Your task to perform on an android device: uninstall "Booking.com: Hotels and more" Image 0: 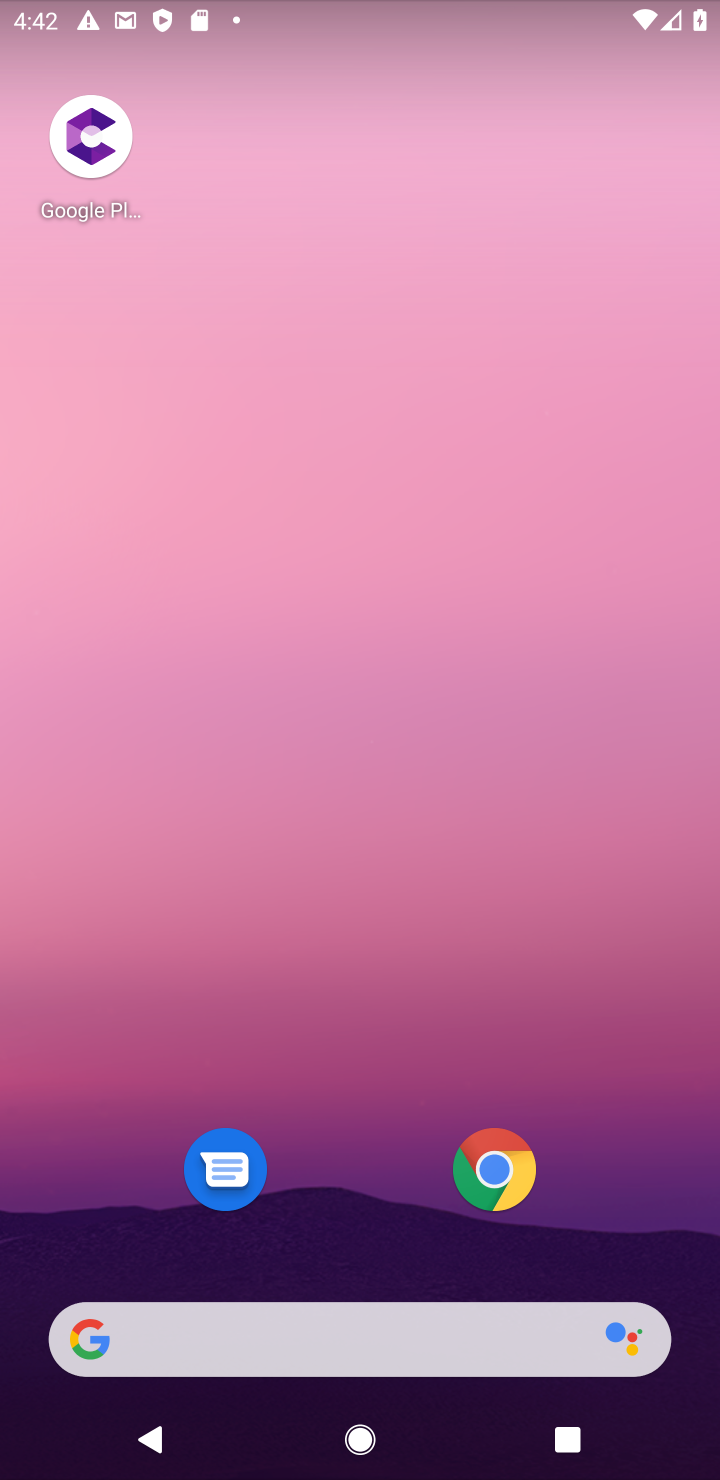
Step 0: drag from (670, 1064) to (484, 326)
Your task to perform on an android device: uninstall "Booking.com: Hotels and more" Image 1: 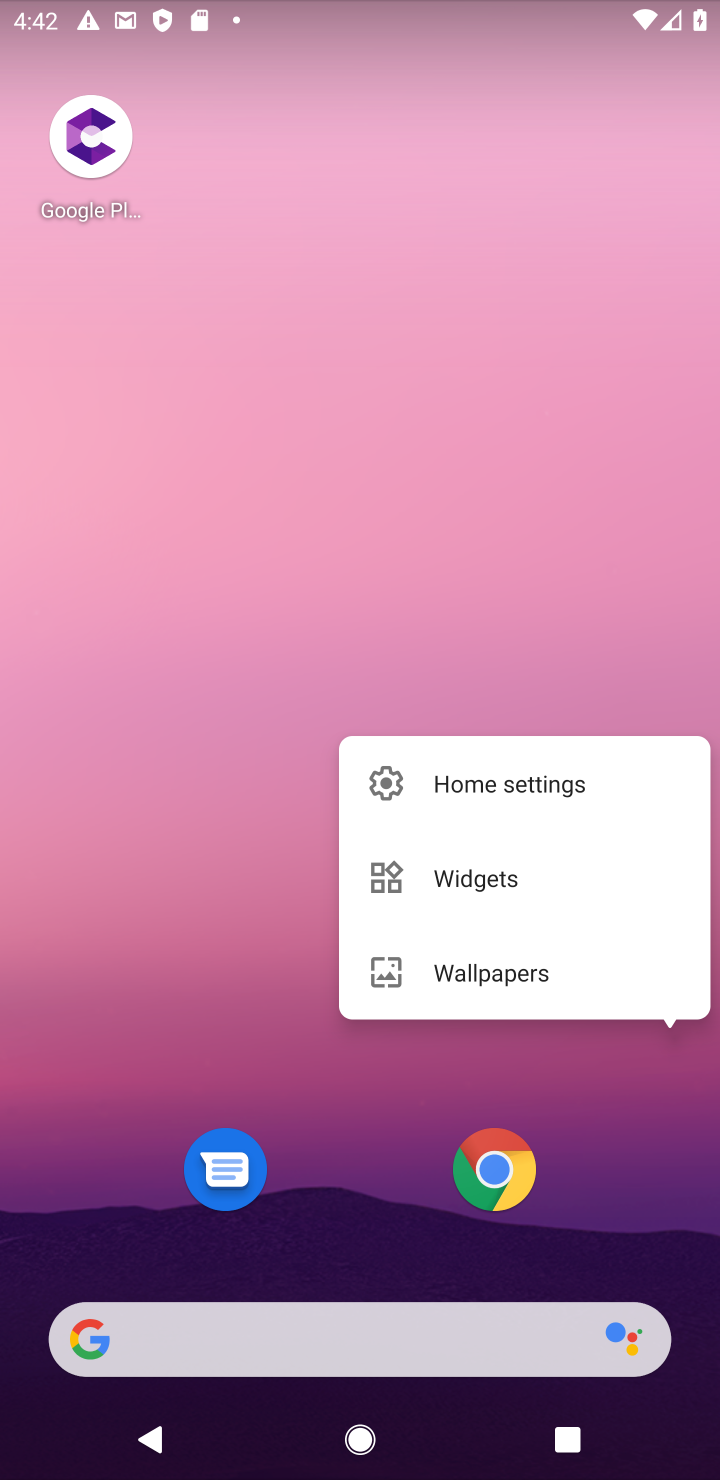
Step 1: drag from (265, 1088) to (142, 334)
Your task to perform on an android device: uninstall "Booking.com: Hotels and more" Image 2: 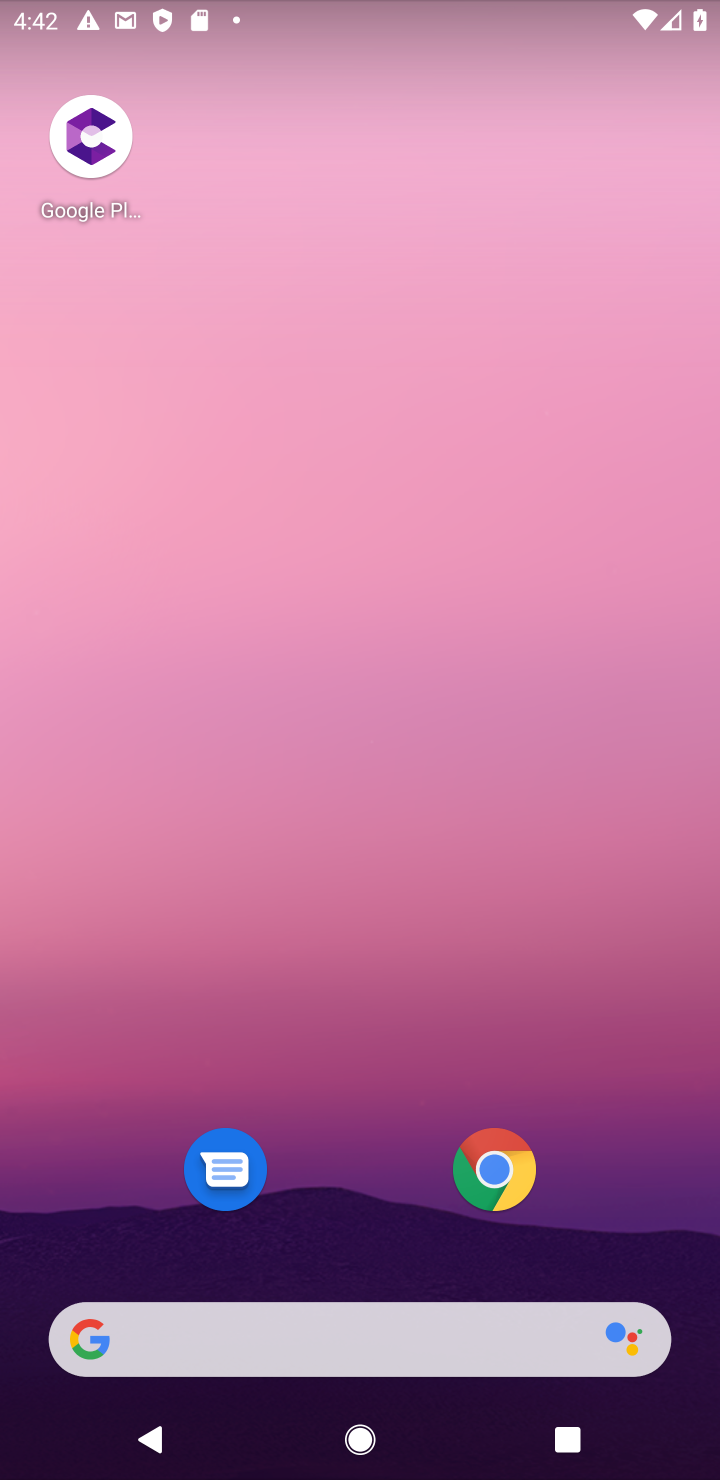
Step 2: drag from (587, 1103) to (399, 305)
Your task to perform on an android device: uninstall "Booking.com: Hotels and more" Image 3: 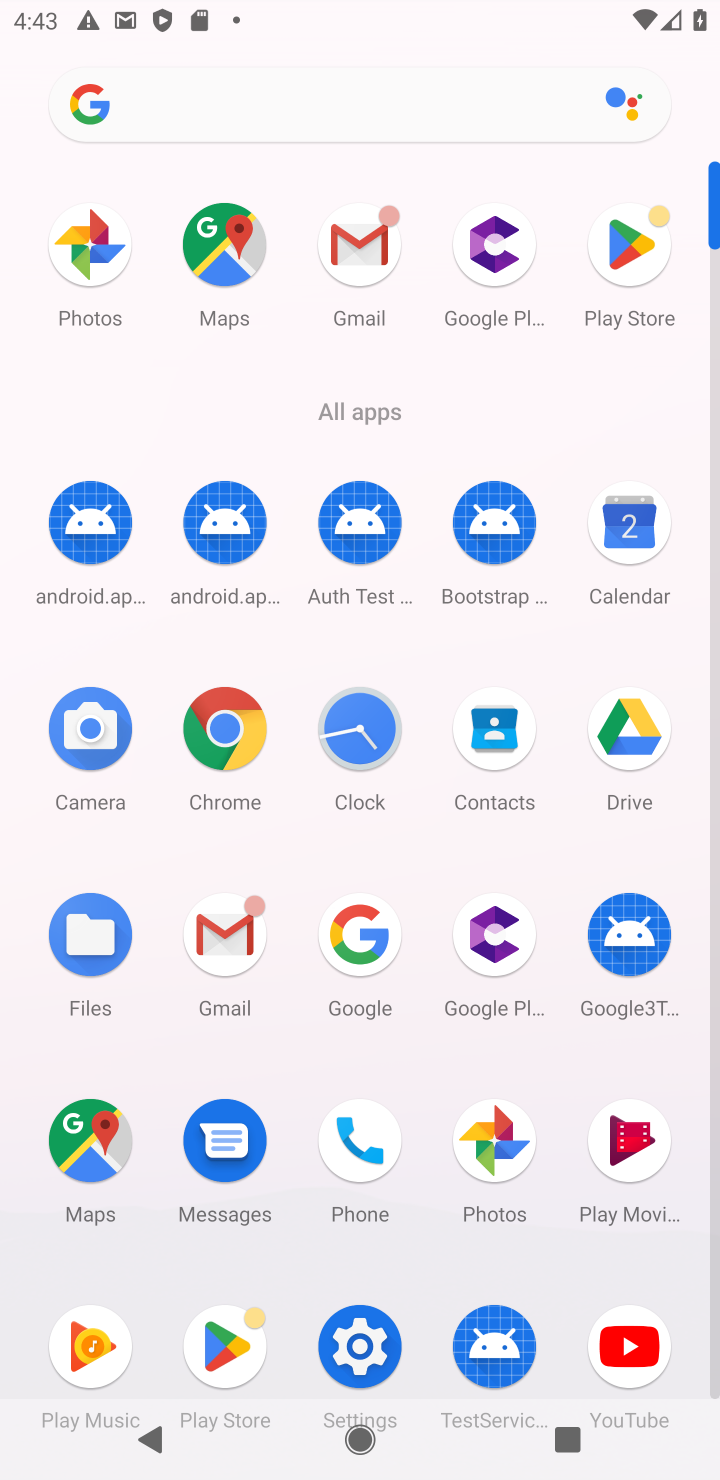
Step 3: click (229, 1324)
Your task to perform on an android device: uninstall "Booking.com: Hotels and more" Image 4: 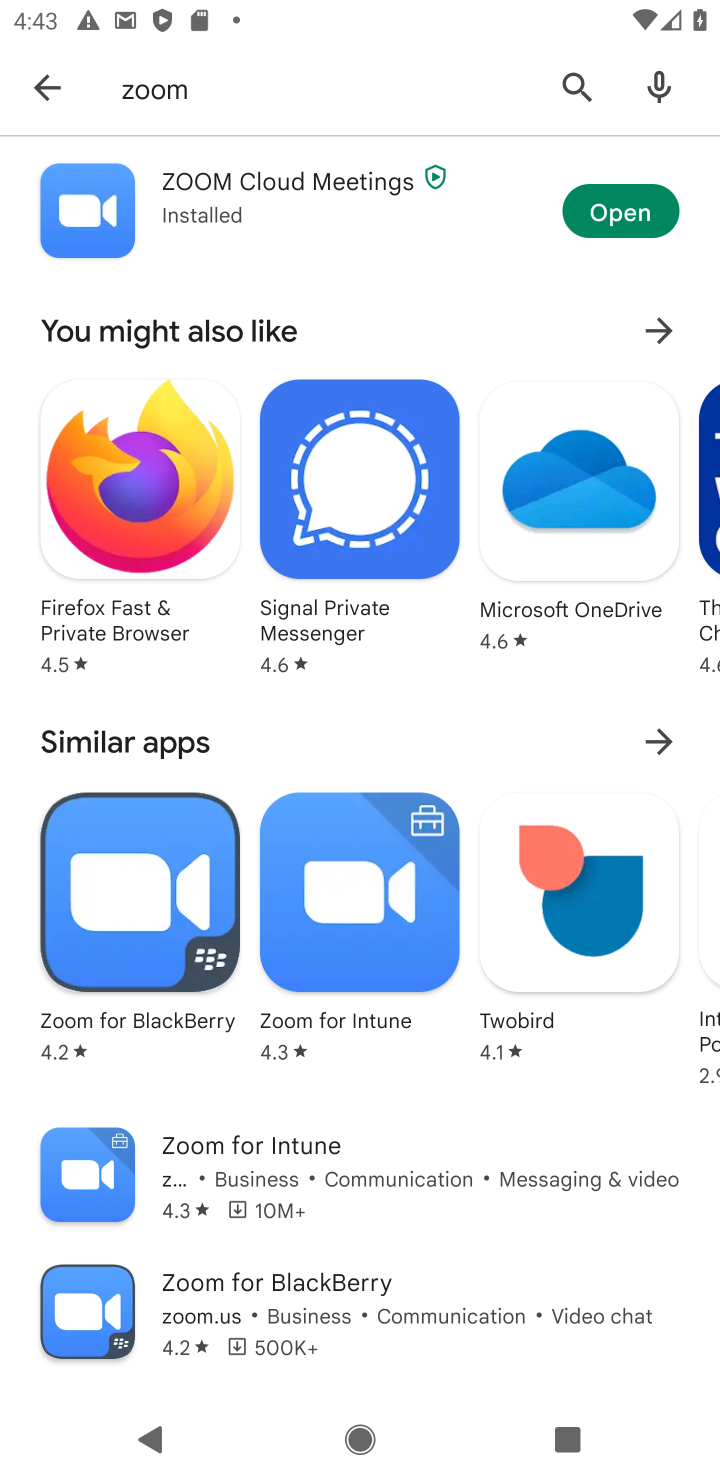
Step 4: click (563, 68)
Your task to perform on an android device: uninstall "Booking.com: Hotels and more" Image 5: 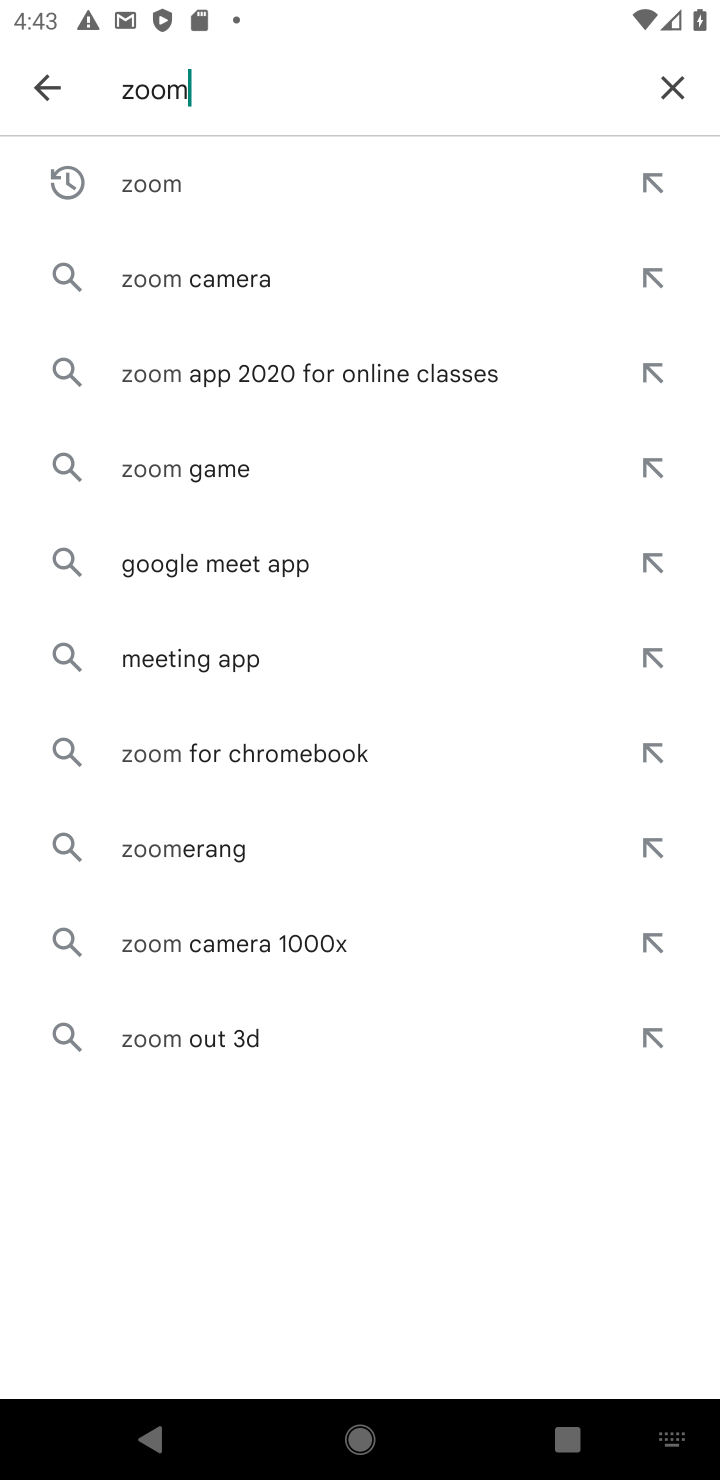
Step 5: click (673, 88)
Your task to perform on an android device: uninstall "Booking.com: Hotels and more" Image 6: 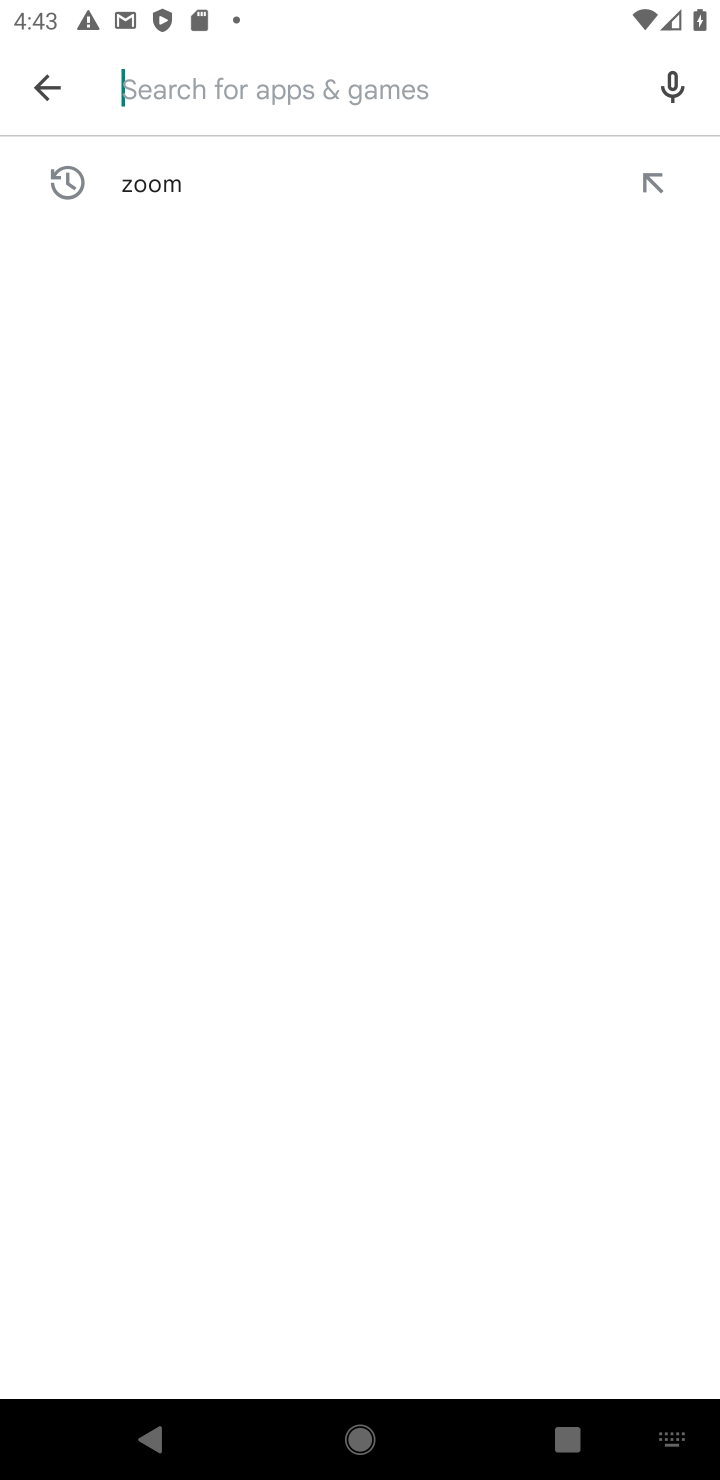
Step 6: type "booking.com"
Your task to perform on an android device: uninstall "Booking.com: Hotels and more" Image 7: 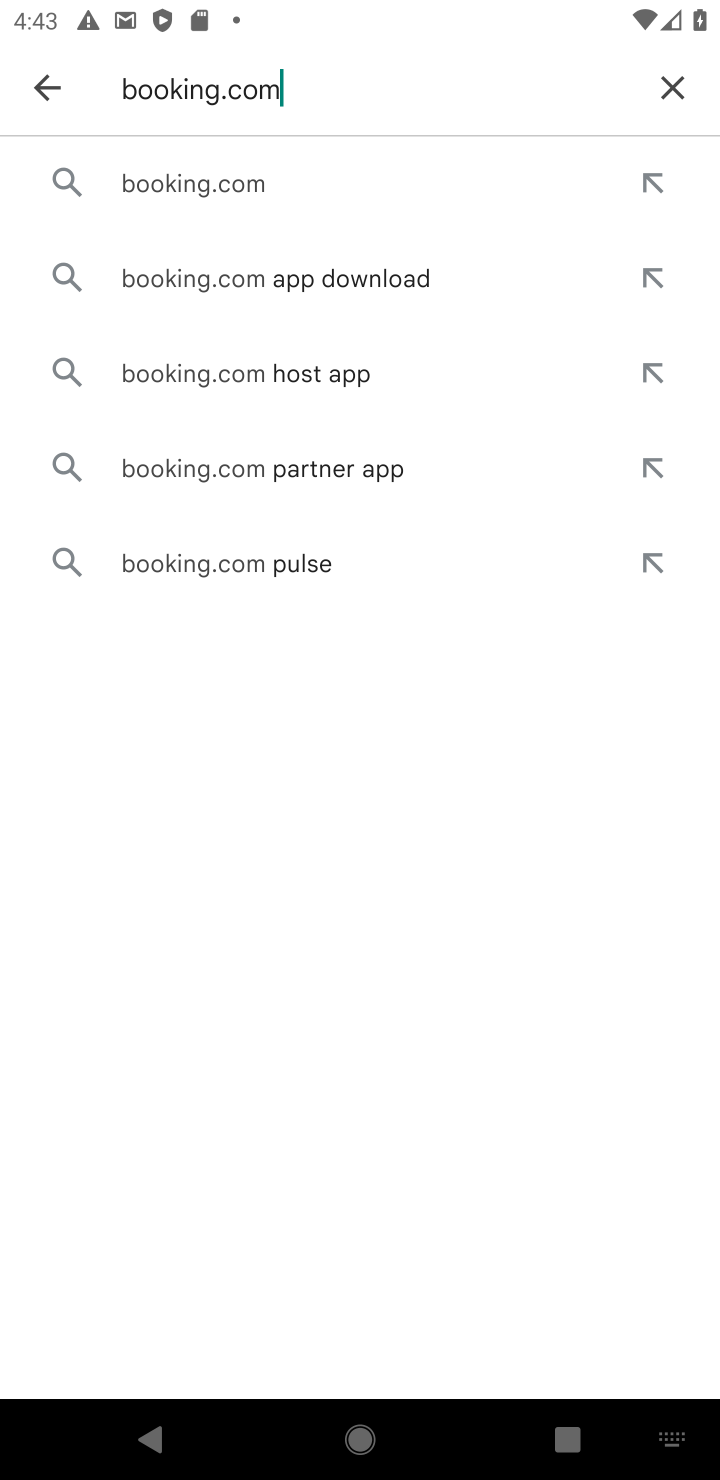
Step 7: click (311, 180)
Your task to perform on an android device: uninstall "Booking.com: Hotels and more" Image 8: 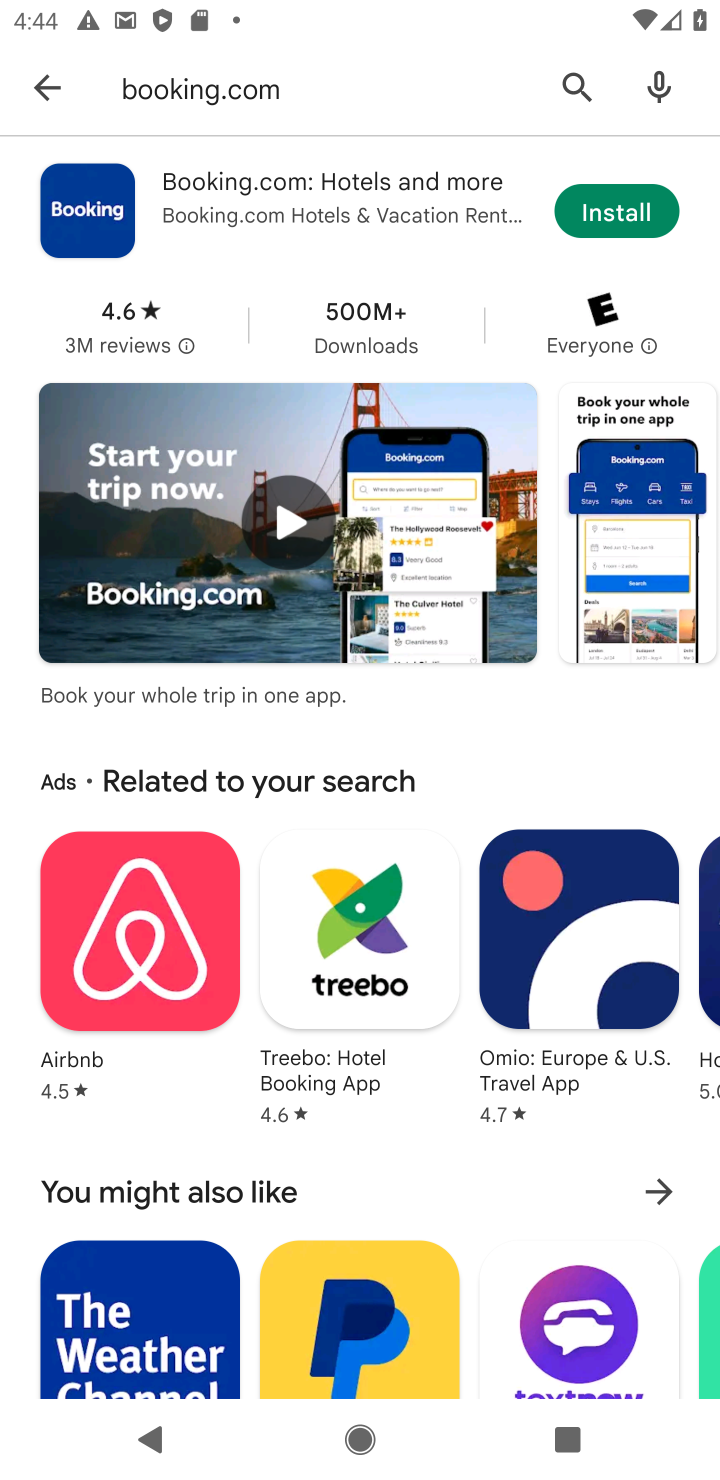
Step 8: task complete